Your task to perform on an android device: change timer sound Image 0: 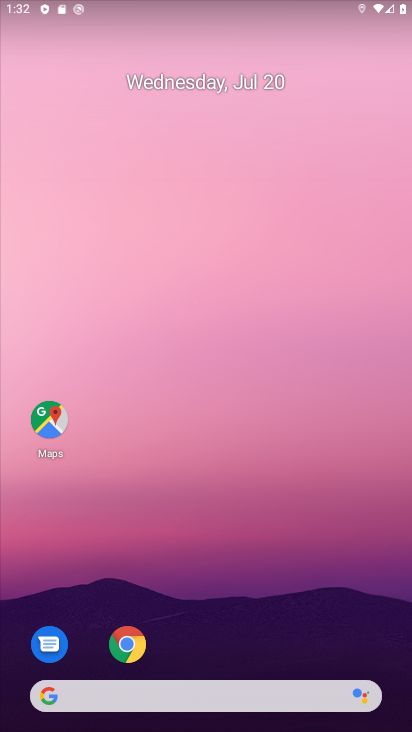
Step 0: drag from (273, 639) to (270, 74)
Your task to perform on an android device: change timer sound Image 1: 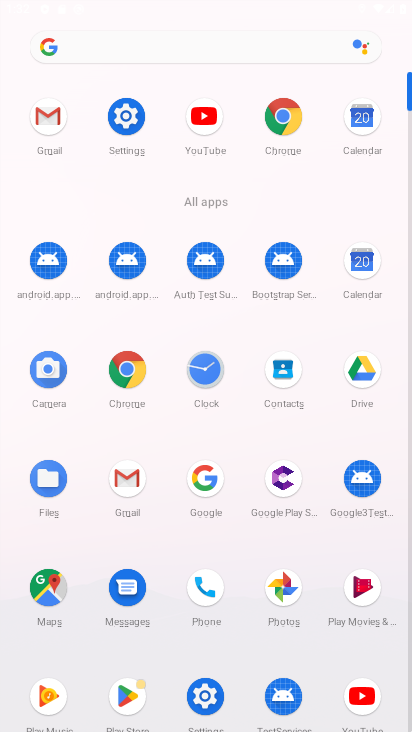
Step 1: click (197, 360)
Your task to perform on an android device: change timer sound Image 2: 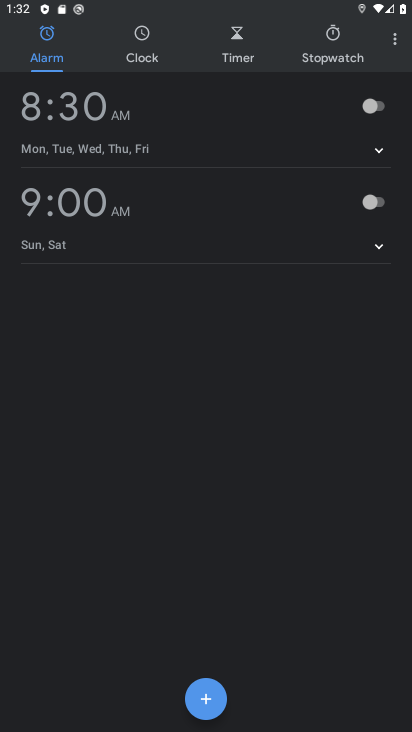
Step 2: click (395, 40)
Your task to perform on an android device: change timer sound Image 3: 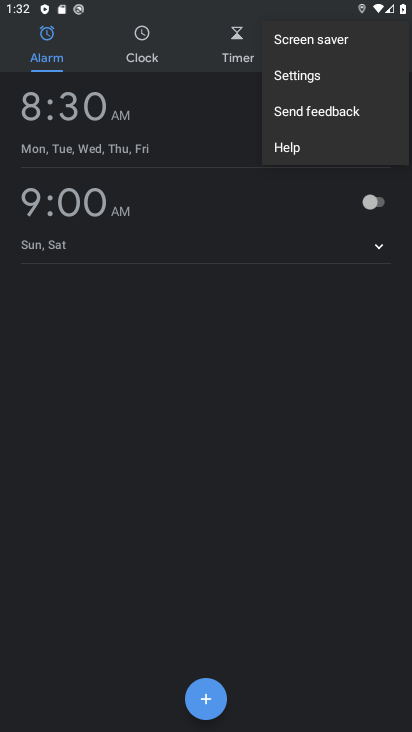
Step 3: click (305, 77)
Your task to perform on an android device: change timer sound Image 4: 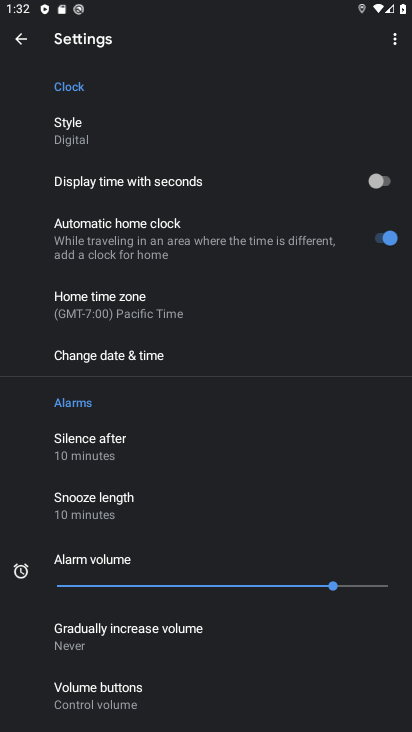
Step 4: drag from (174, 644) to (156, 347)
Your task to perform on an android device: change timer sound Image 5: 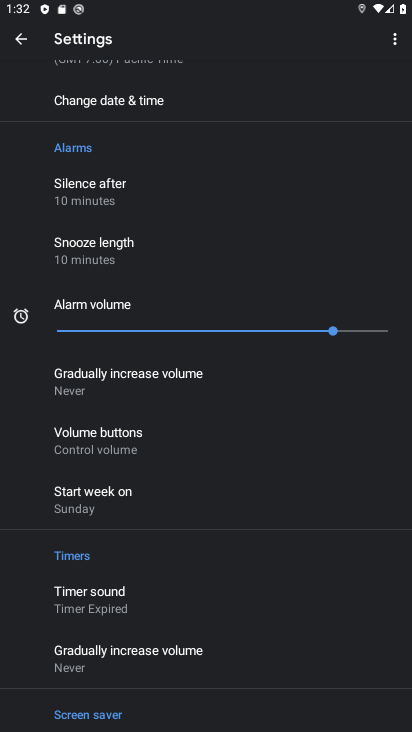
Step 5: click (114, 598)
Your task to perform on an android device: change timer sound Image 6: 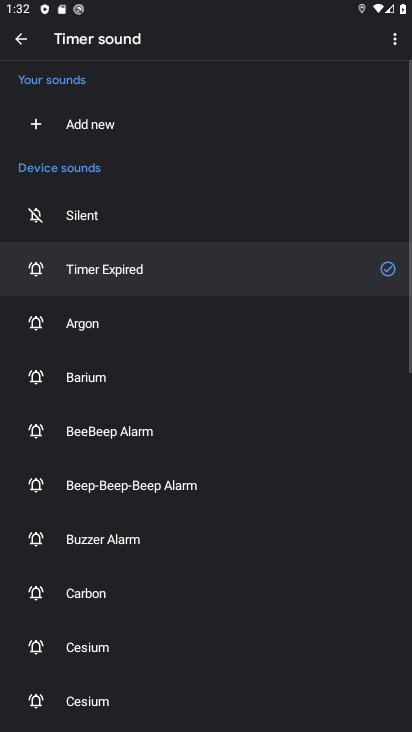
Step 6: click (115, 327)
Your task to perform on an android device: change timer sound Image 7: 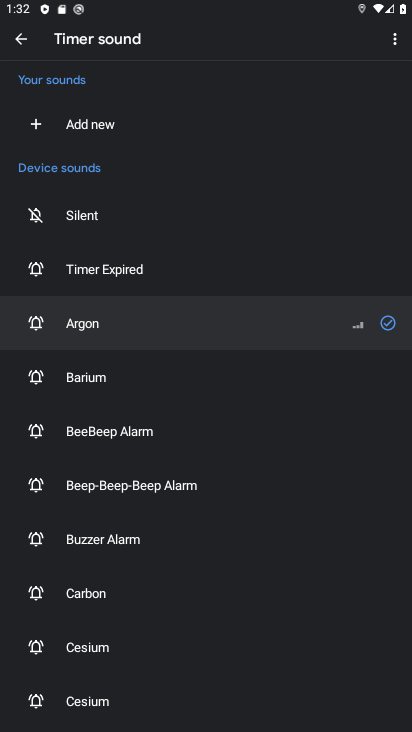
Step 7: task complete